Your task to perform on an android device: Open the map Image 0: 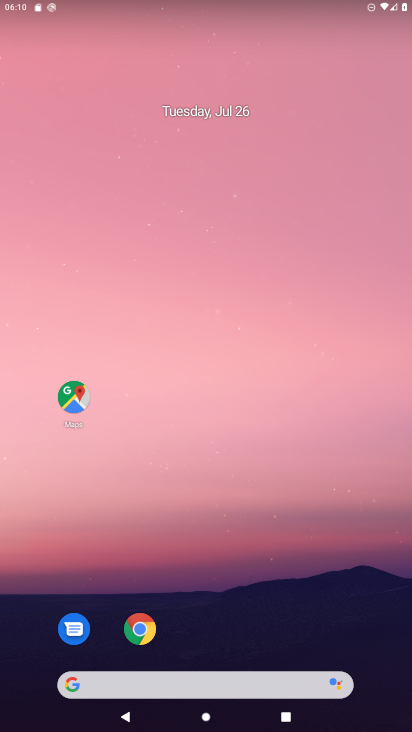
Step 0: click (71, 398)
Your task to perform on an android device: Open the map Image 1: 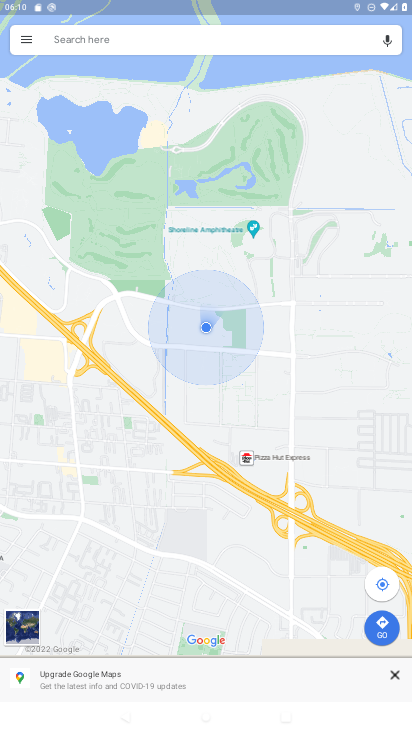
Step 1: task complete